Your task to perform on an android device: turn pop-ups on in chrome Image 0: 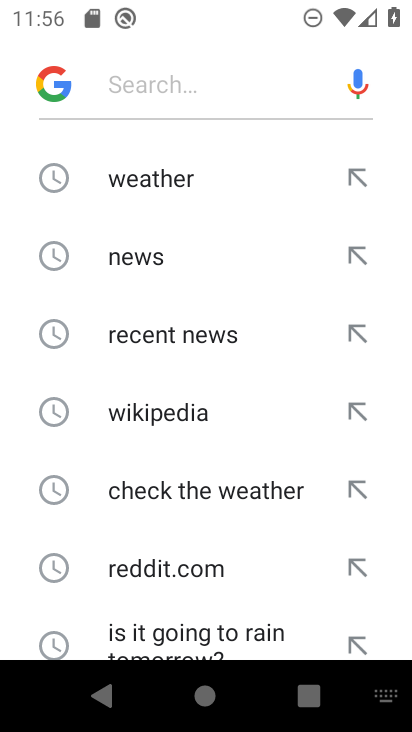
Step 0: press home button
Your task to perform on an android device: turn pop-ups on in chrome Image 1: 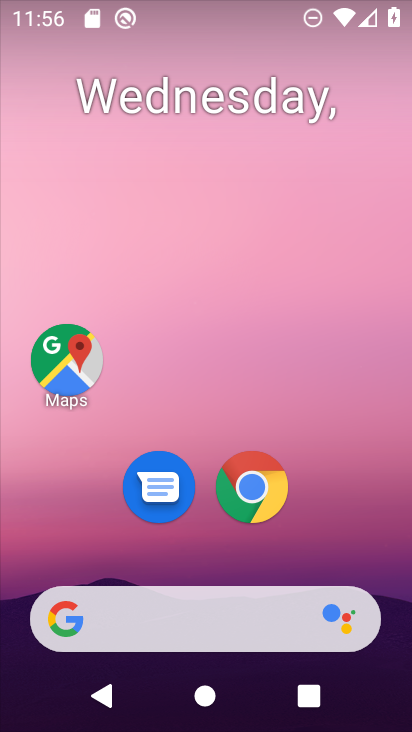
Step 1: click (248, 485)
Your task to perform on an android device: turn pop-ups on in chrome Image 2: 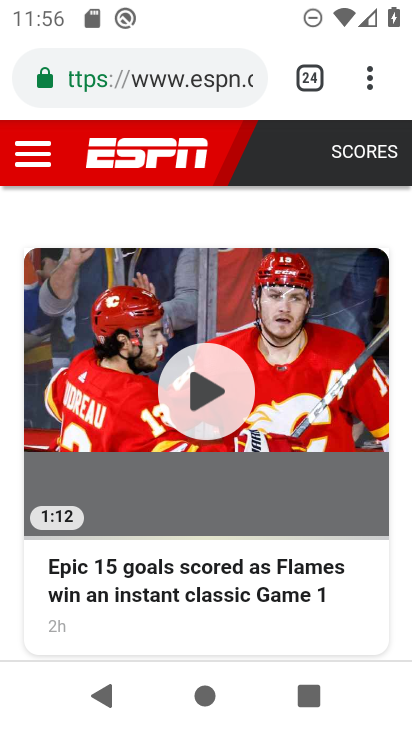
Step 2: click (373, 67)
Your task to perform on an android device: turn pop-ups on in chrome Image 3: 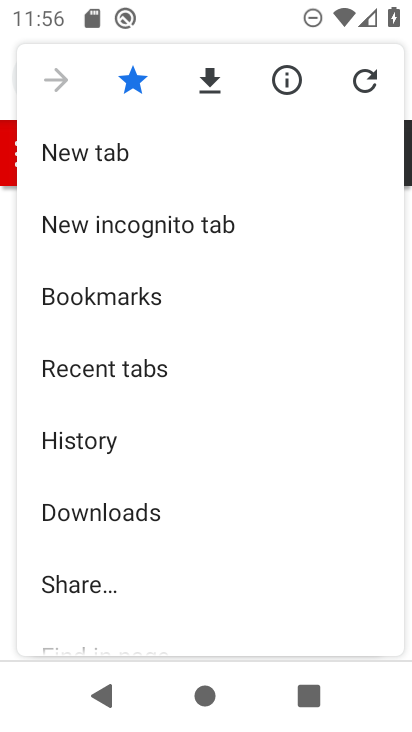
Step 3: drag from (246, 517) to (233, 169)
Your task to perform on an android device: turn pop-ups on in chrome Image 4: 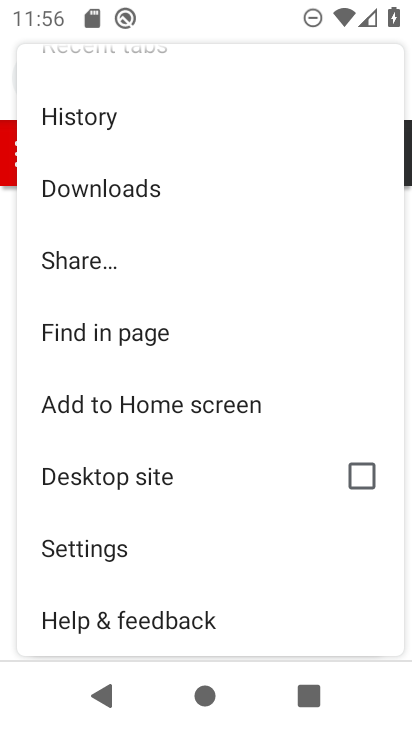
Step 4: drag from (233, 477) to (228, 258)
Your task to perform on an android device: turn pop-ups on in chrome Image 5: 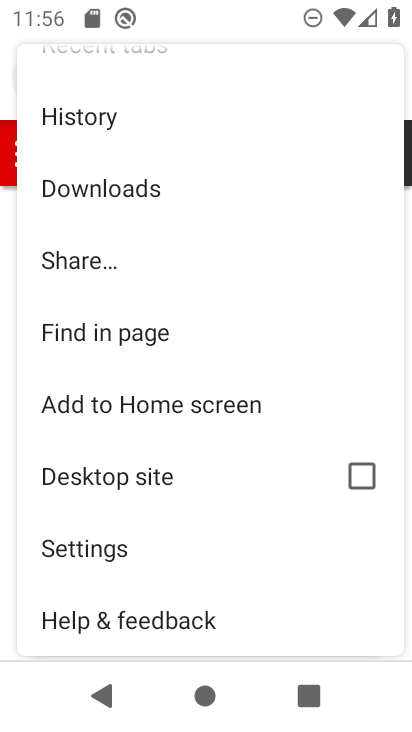
Step 5: click (98, 552)
Your task to perform on an android device: turn pop-ups on in chrome Image 6: 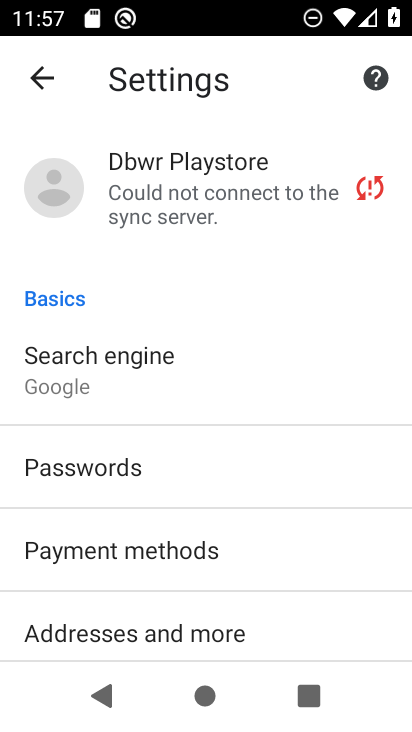
Step 6: drag from (236, 541) to (236, 262)
Your task to perform on an android device: turn pop-ups on in chrome Image 7: 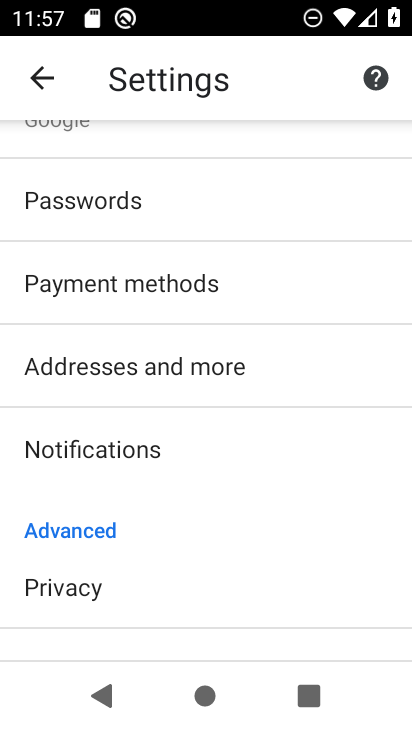
Step 7: drag from (303, 441) to (264, 171)
Your task to perform on an android device: turn pop-ups on in chrome Image 8: 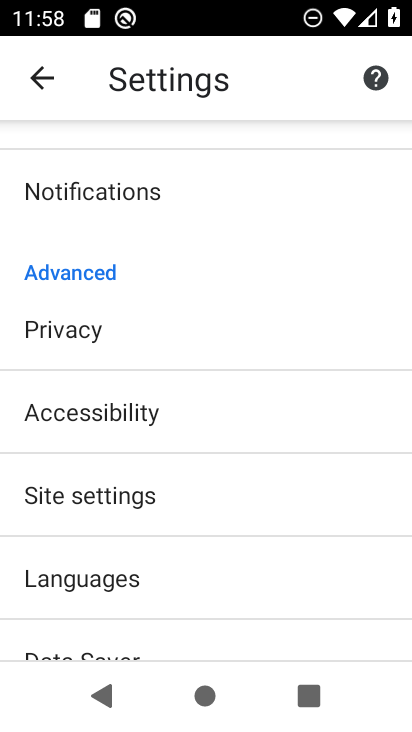
Step 8: drag from (261, 555) to (261, 353)
Your task to perform on an android device: turn pop-ups on in chrome Image 9: 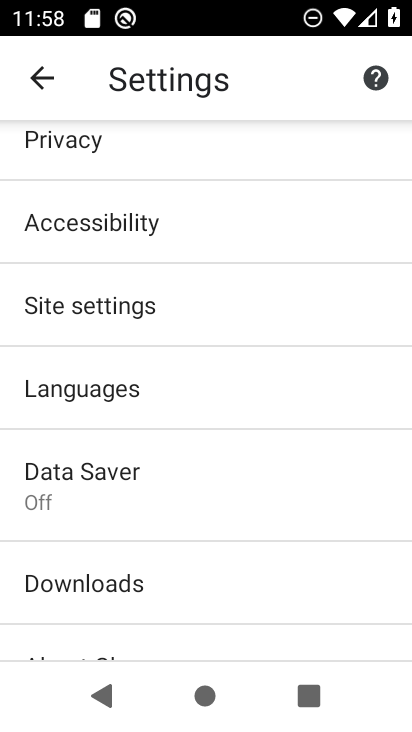
Step 9: click (88, 298)
Your task to perform on an android device: turn pop-ups on in chrome Image 10: 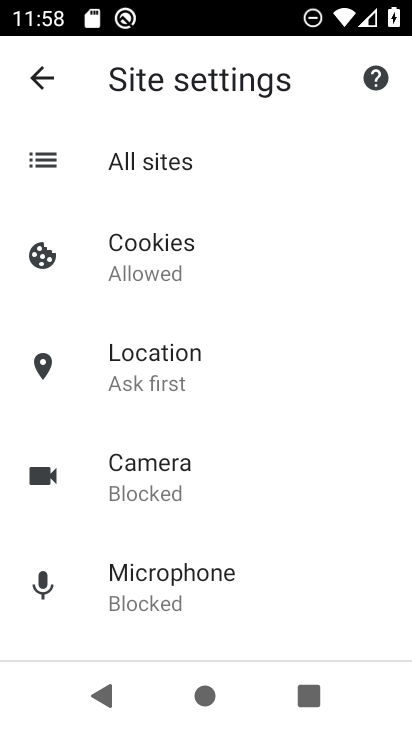
Step 10: drag from (284, 482) to (279, 188)
Your task to perform on an android device: turn pop-ups on in chrome Image 11: 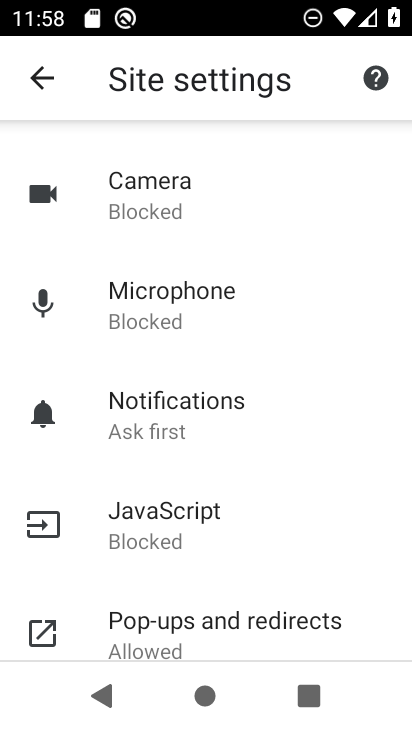
Step 11: click (157, 618)
Your task to perform on an android device: turn pop-ups on in chrome Image 12: 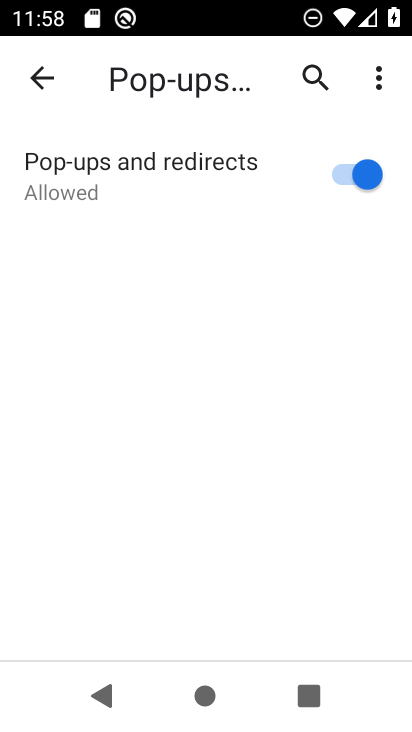
Step 12: task complete